Your task to perform on an android device: toggle priority inbox in the gmail app Image 0: 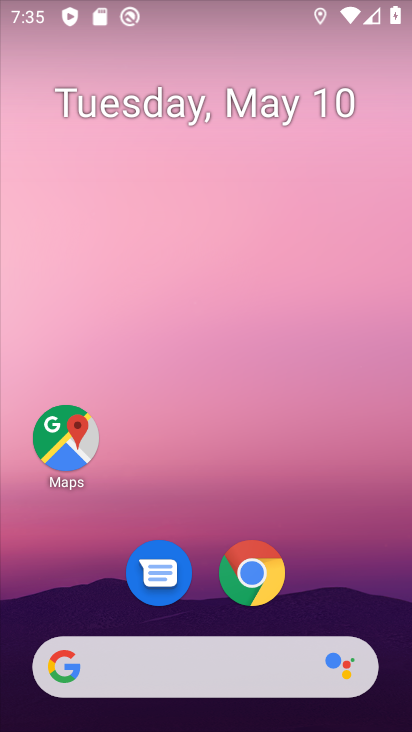
Step 0: drag from (383, 567) to (297, 101)
Your task to perform on an android device: toggle priority inbox in the gmail app Image 1: 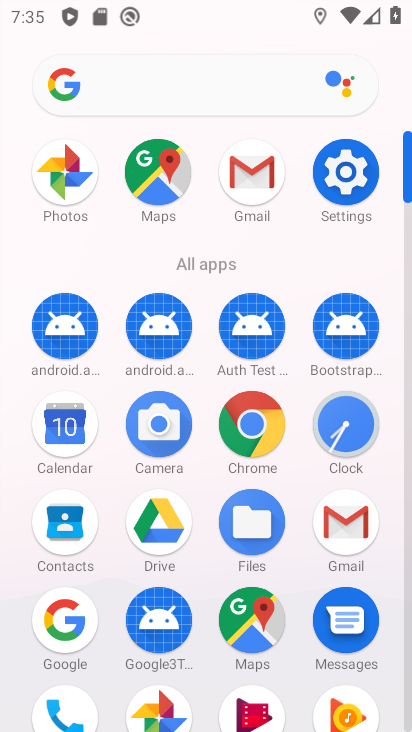
Step 1: click (269, 153)
Your task to perform on an android device: toggle priority inbox in the gmail app Image 2: 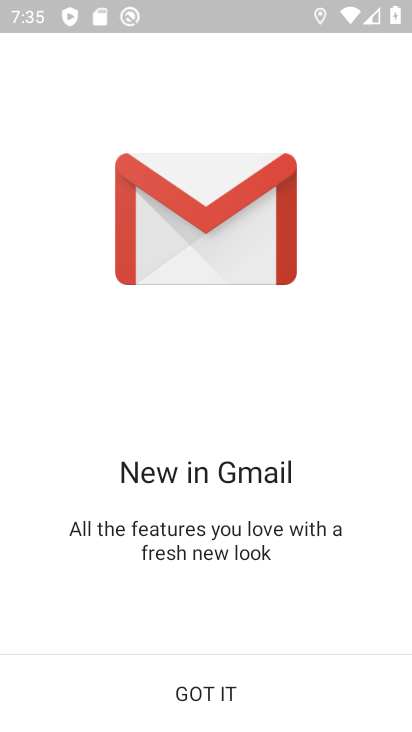
Step 2: click (214, 691)
Your task to perform on an android device: toggle priority inbox in the gmail app Image 3: 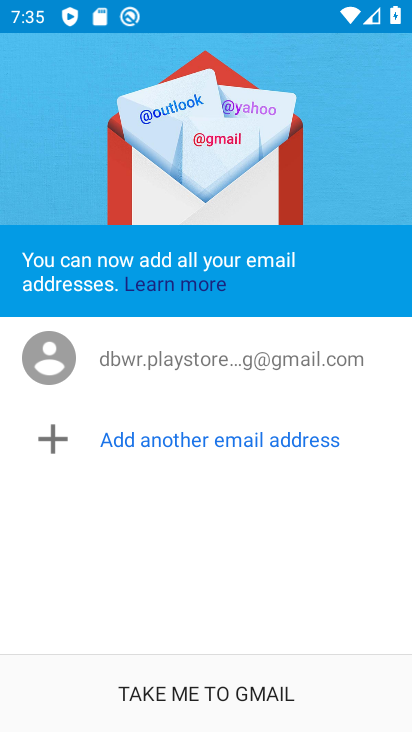
Step 3: click (214, 691)
Your task to perform on an android device: toggle priority inbox in the gmail app Image 4: 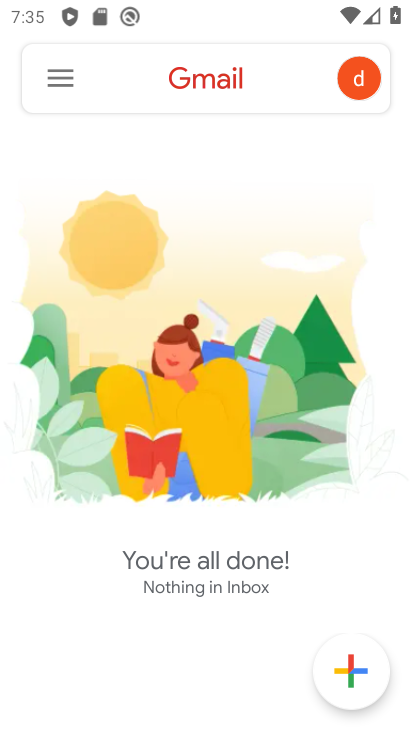
Step 4: click (57, 86)
Your task to perform on an android device: toggle priority inbox in the gmail app Image 5: 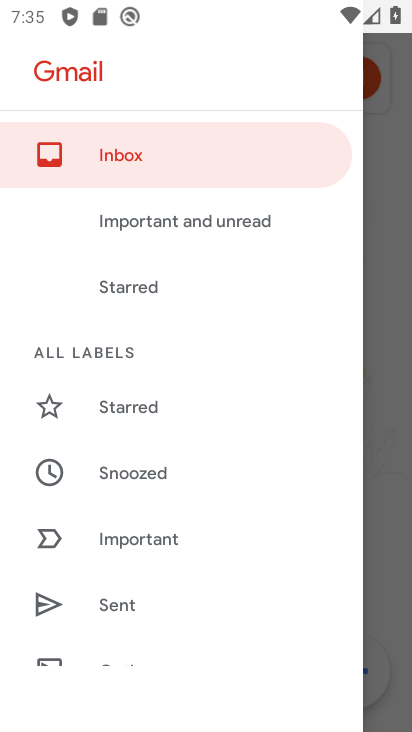
Step 5: drag from (175, 516) to (147, 54)
Your task to perform on an android device: toggle priority inbox in the gmail app Image 6: 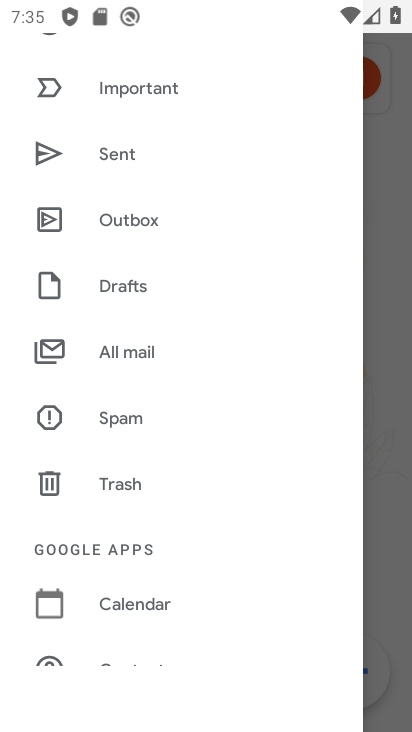
Step 6: drag from (244, 553) to (187, 243)
Your task to perform on an android device: toggle priority inbox in the gmail app Image 7: 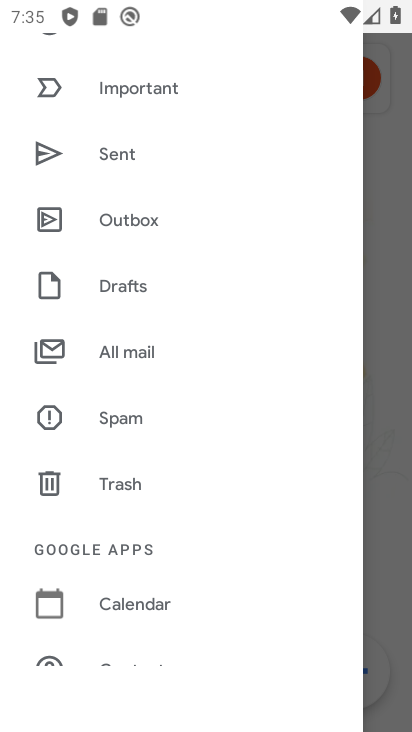
Step 7: drag from (188, 481) to (196, 70)
Your task to perform on an android device: toggle priority inbox in the gmail app Image 8: 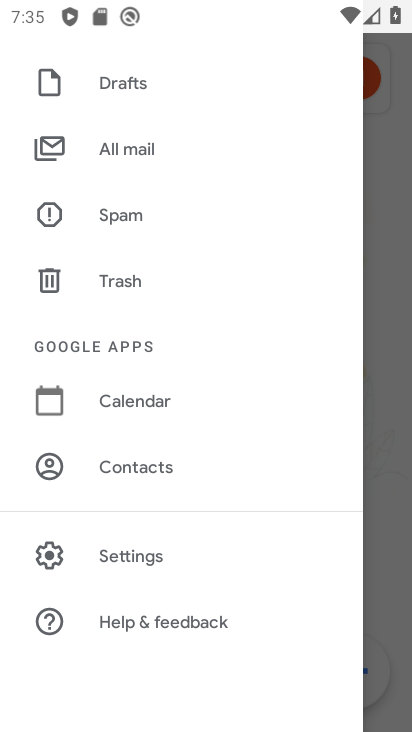
Step 8: click (160, 558)
Your task to perform on an android device: toggle priority inbox in the gmail app Image 9: 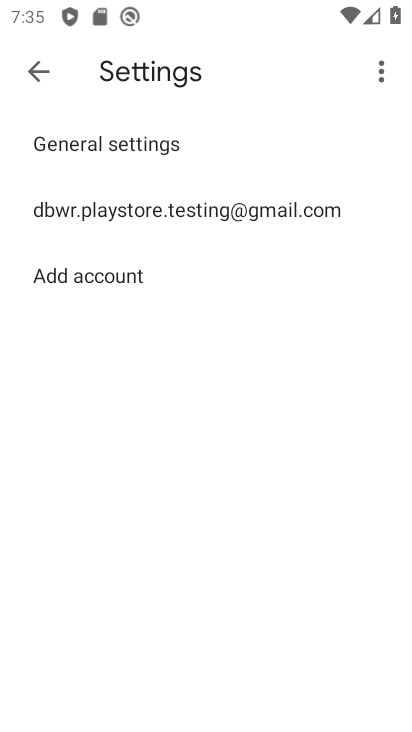
Step 9: click (136, 198)
Your task to perform on an android device: toggle priority inbox in the gmail app Image 10: 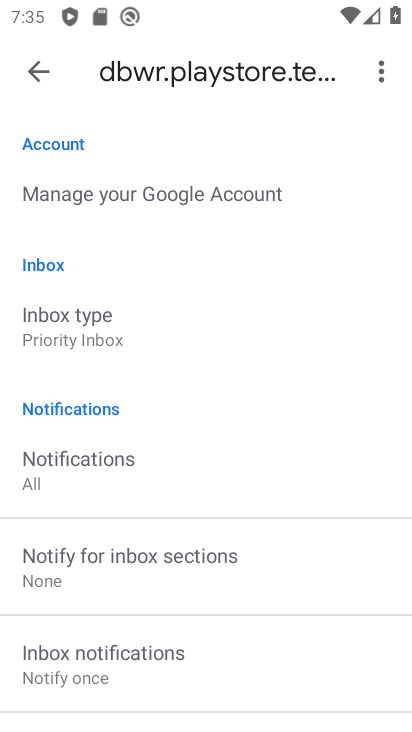
Step 10: click (150, 315)
Your task to perform on an android device: toggle priority inbox in the gmail app Image 11: 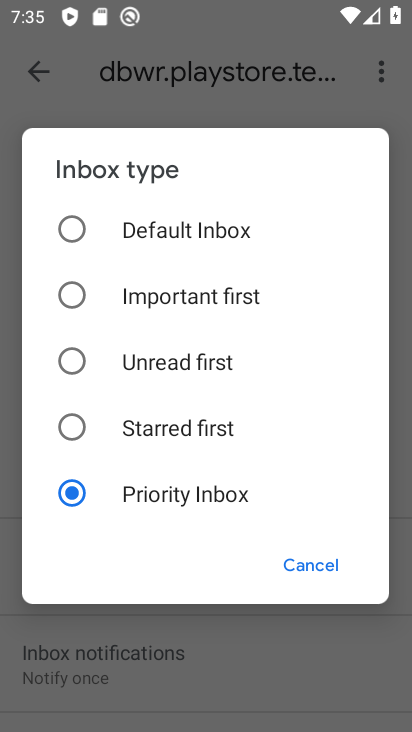
Step 11: click (130, 235)
Your task to perform on an android device: toggle priority inbox in the gmail app Image 12: 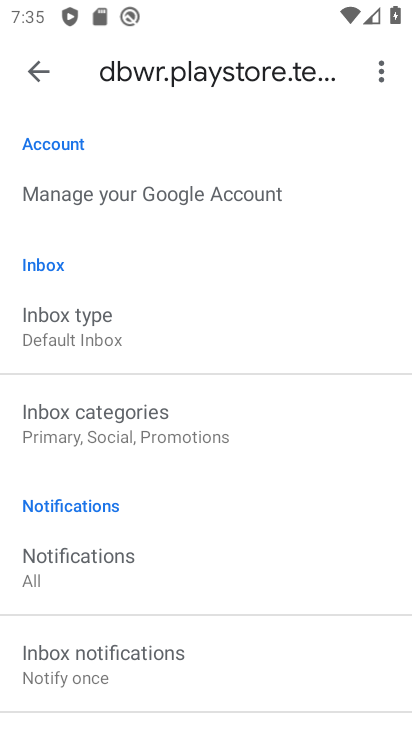
Step 12: task complete